Your task to perform on an android device: snooze an email in the gmail app Image 0: 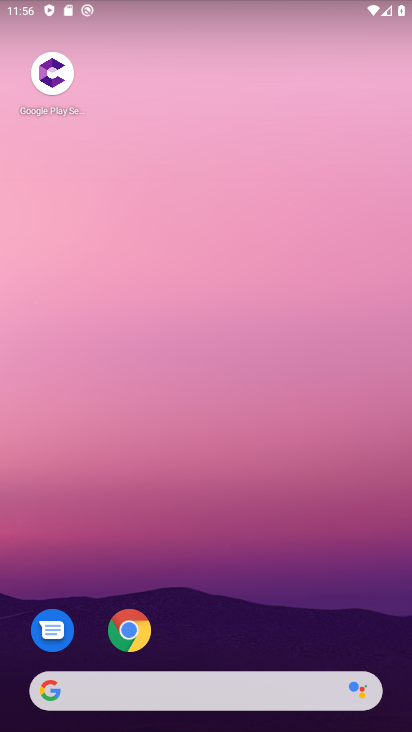
Step 0: click (375, 197)
Your task to perform on an android device: snooze an email in the gmail app Image 1: 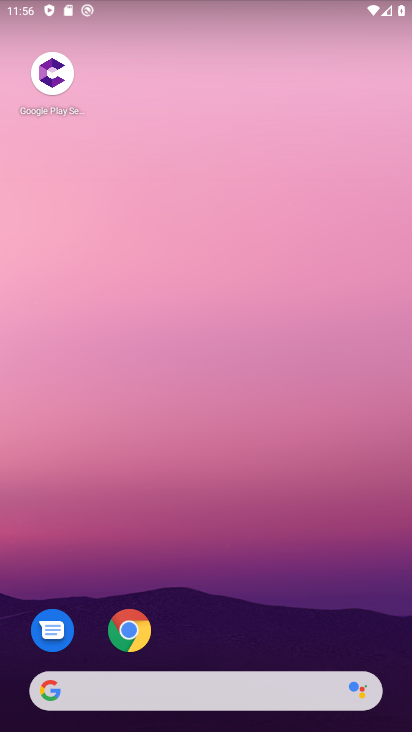
Step 1: drag from (376, 609) to (340, 295)
Your task to perform on an android device: snooze an email in the gmail app Image 2: 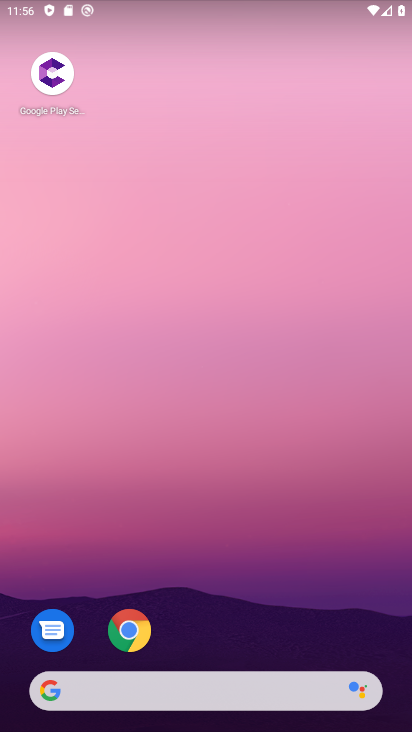
Step 2: drag from (389, 675) to (357, 360)
Your task to perform on an android device: snooze an email in the gmail app Image 3: 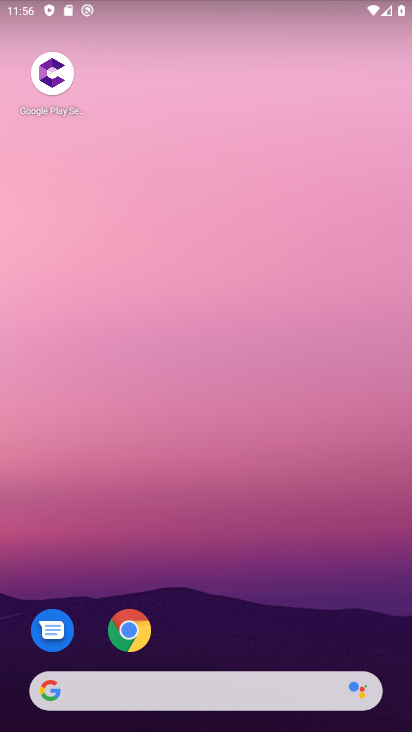
Step 3: drag from (390, 609) to (338, 272)
Your task to perform on an android device: snooze an email in the gmail app Image 4: 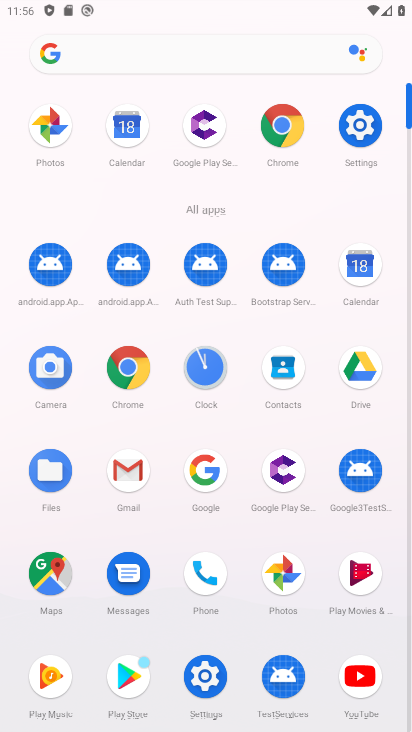
Step 4: click (126, 477)
Your task to perform on an android device: snooze an email in the gmail app Image 5: 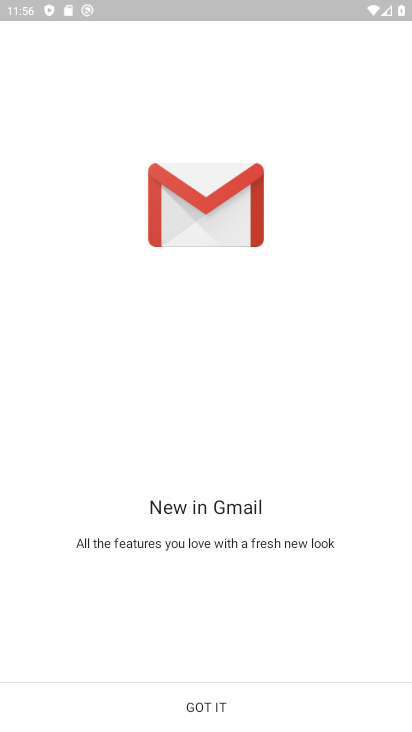
Step 5: click (203, 692)
Your task to perform on an android device: snooze an email in the gmail app Image 6: 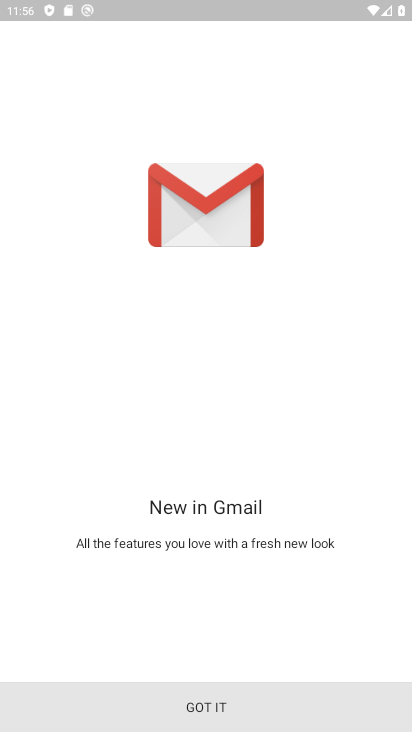
Step 6: click (206, 698)
Your task to perform on an android device: snooze an email in the gmail app Image 7: 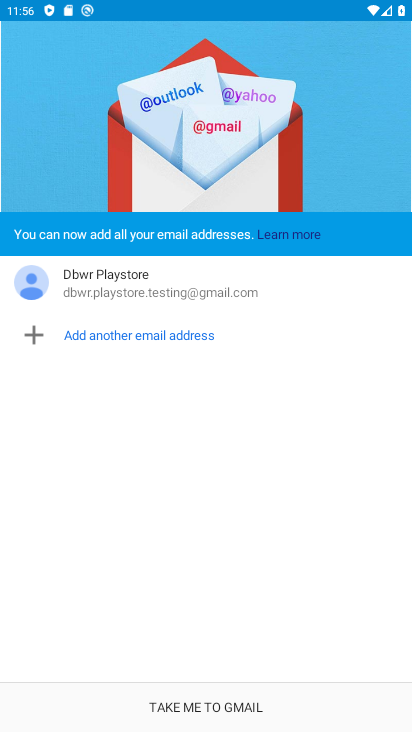
Step 7: click (206, 698)
Your task to perform on an android device: snooze an email in the gmail app Image 8: 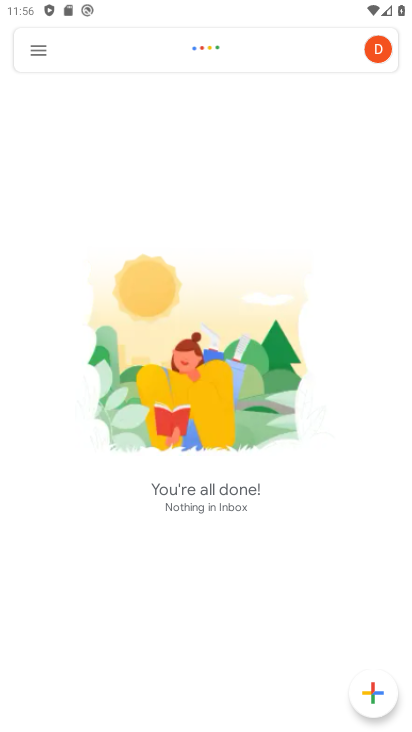
Step 8: click (32, 50)
Your task to perform on an android device: snooze an email in the gmail app Image 9: 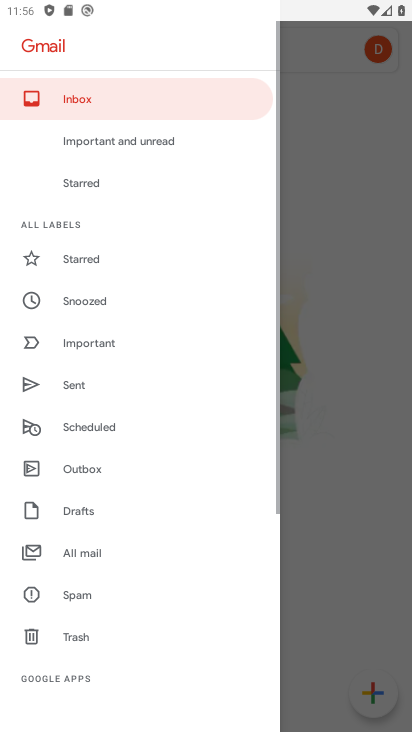
Step 9: click (99, 97)
Your task to perform on an android device: snooze an email in the gmail app Image 10: 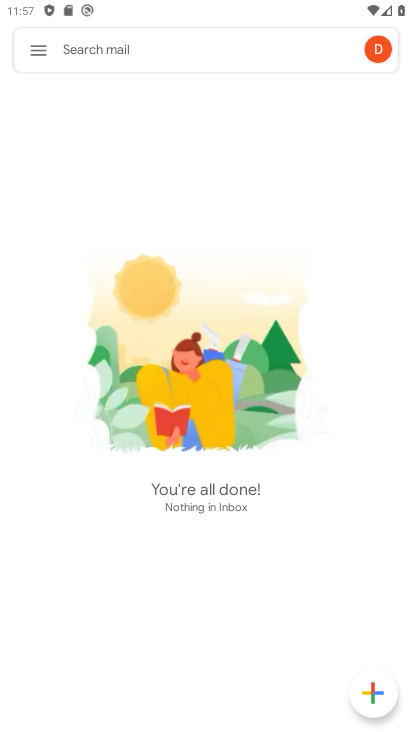
Step 10: task complete